Your task to perform on an android device: open chrome and create a bookmark for the current page Image 0: 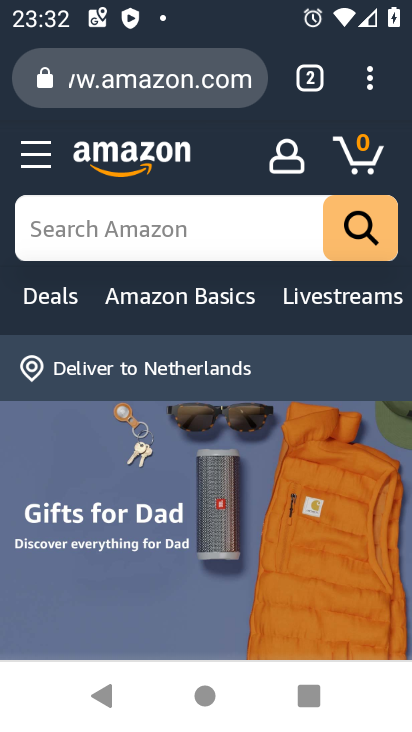
Step 0: click (366, 84)
Your task to perform on an android device: open chrome and create a bookmark for the current page Image 1: 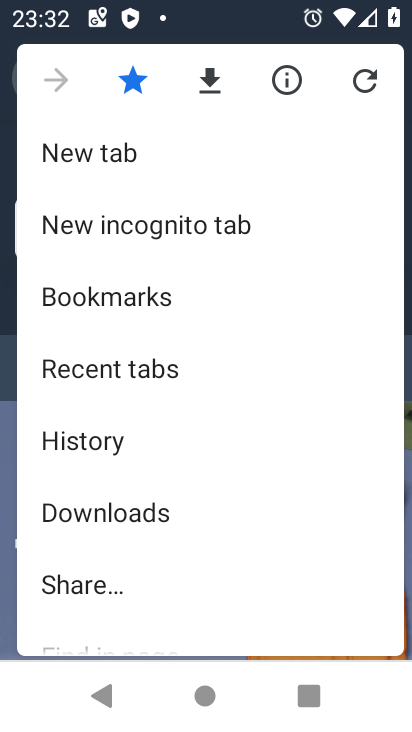
Step 1: task complete